Your task to perform on an android device: turn on airplane mode Image 0: 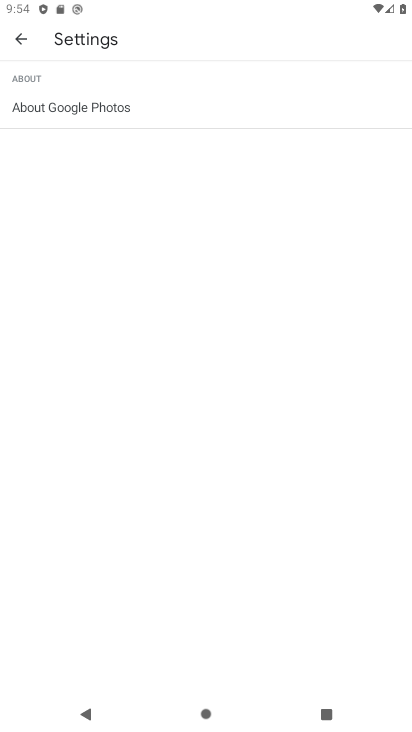
Step 0: press home button
Your task to perform on an android device: turn on airplane mode Image 1: 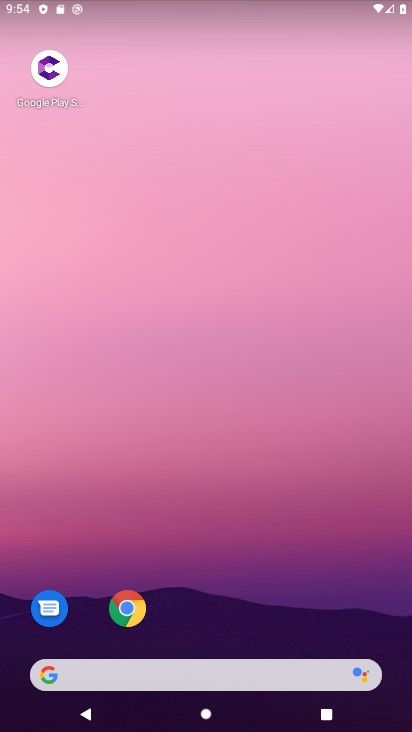
Step 1: drag from (192, 570) to (203, 155)
Your task to perform on an android device: turn on airplane mode Image 2: 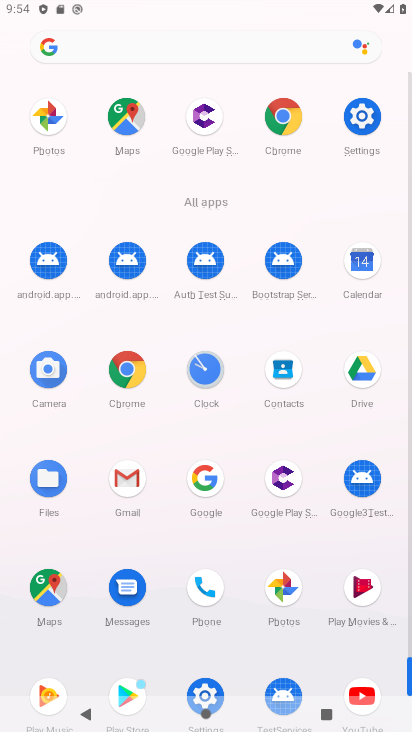
Step 2: click (209, 686)
Your task to perform on an android device: turn on airplane mode Image 3: 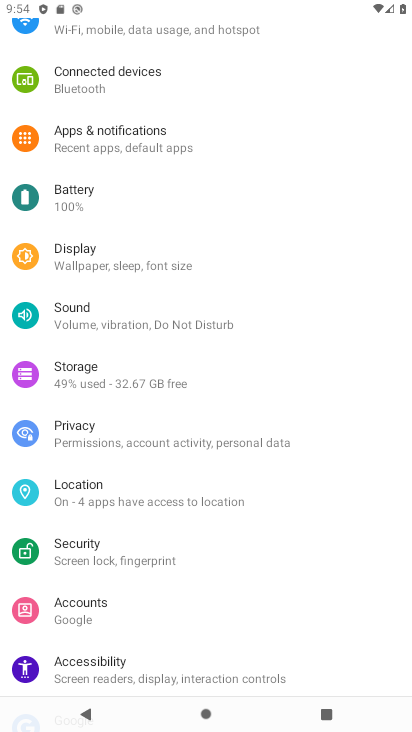
Step 3: drag from (150, 180) to (155, 451)
Your task to perform on an android device: turn on airplane mode Image 4: 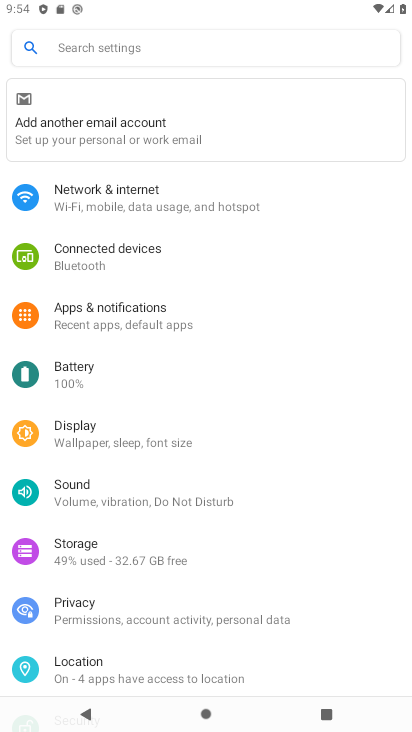
Step 4: click (141, 204)
Your task to perform on an android device: turn on airplane mode Image 5: 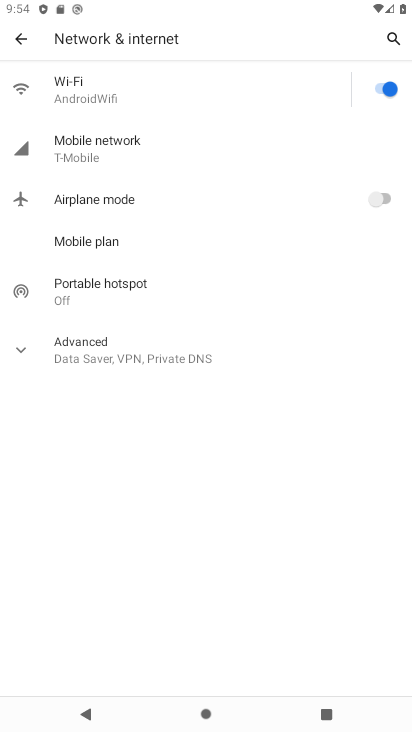
Step 5: click (392, 199)
Your task to perform on an android device: turn on airplane mode Image 6: 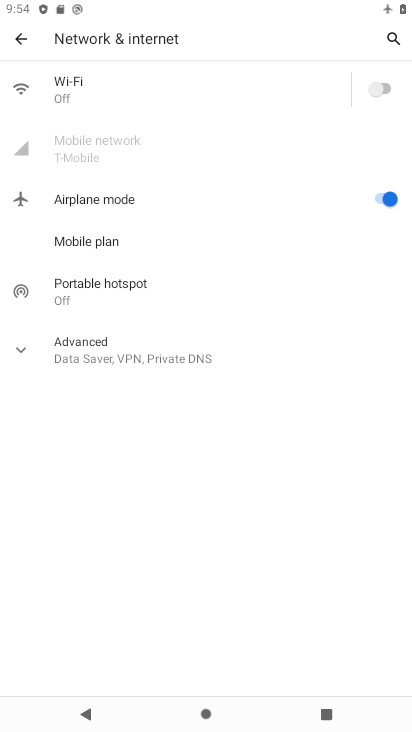
Step 6: task complete